Your task to perform on an android device: Open the calendar app, open the side menu, and click the "Day" option Image 0: 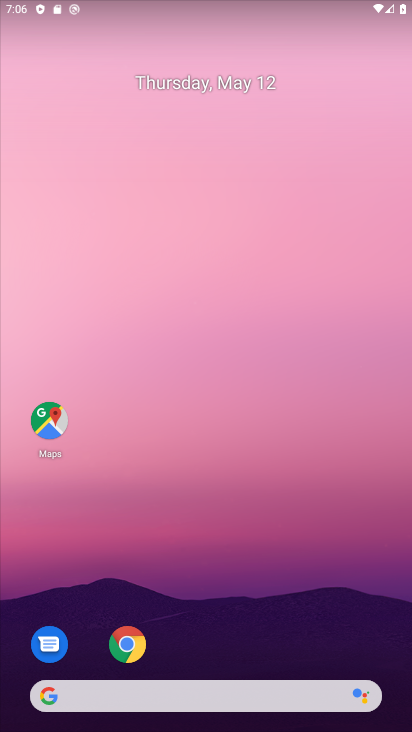
Step 0: drag from (306, 702) to (294, 236)
Your task to perform on an android device: Open the calendar app, open the side menu, and click the "Day" option Image 1: 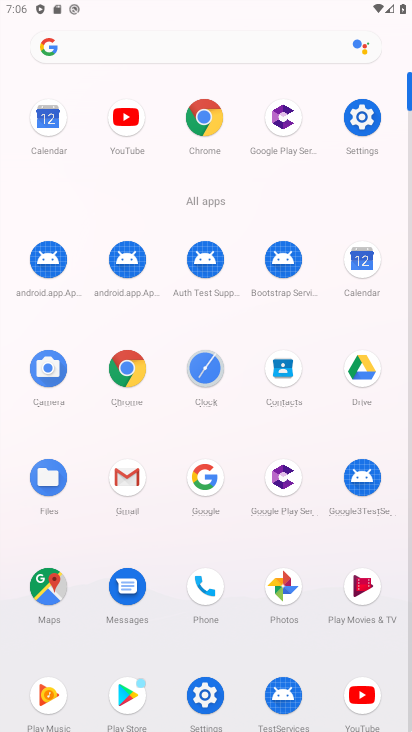
Step 1: click (347, 274)
Your task to perform on an android device: Open the calendar app, open the side menu, and click the "Day" option Image 2: 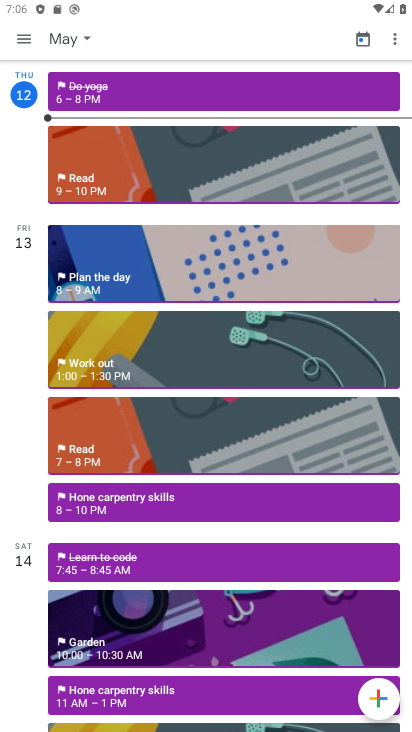
Step 2: click (27, 44)
Your task to perform on an android device: Open the calendar app, open the side menu, and click the "Day" option Image 3: 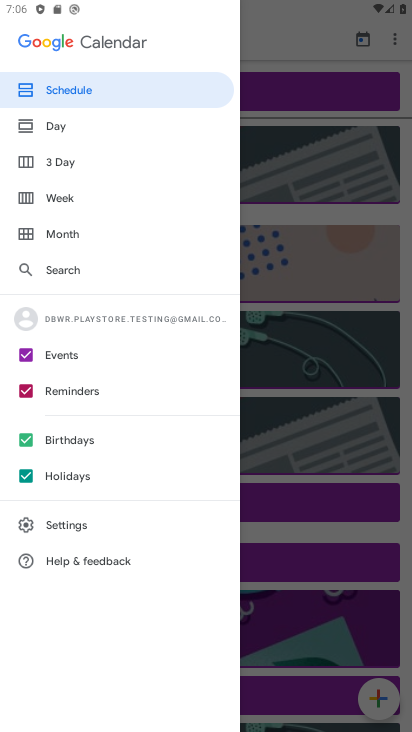
Step 3: click (85, 126)
Your task to perform on an android device: Open the calendar app, open the side menu, and click the "Day" option Image 4: 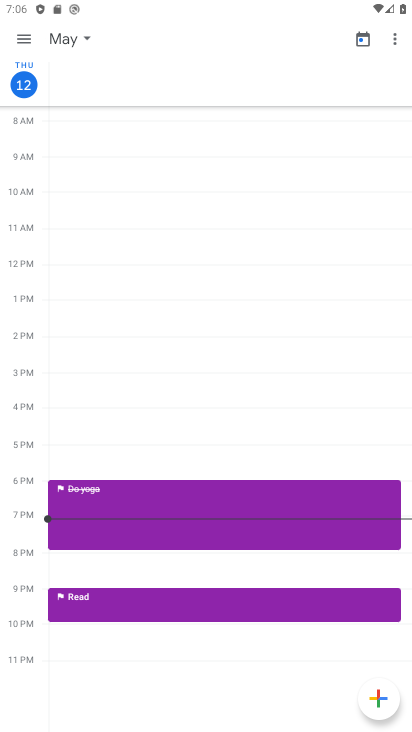
Step 4: task complete